Your task to perform on an android device: Check the weather Image 0: 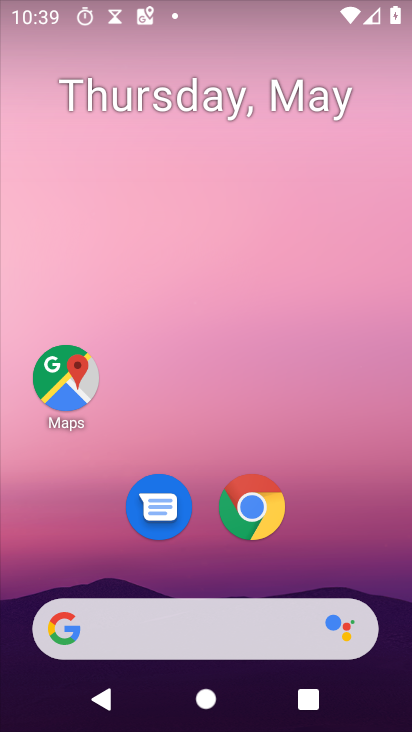
Step 0: drag from (211, 18) to (213, 633)
Your task to perform on an android device: Check the weather Image 1: 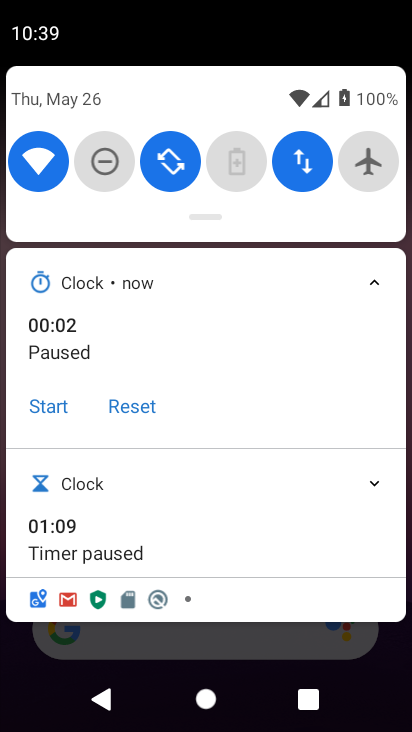
Step 1: press home button
Your task to perform on an android device: Check the weather Image 2: 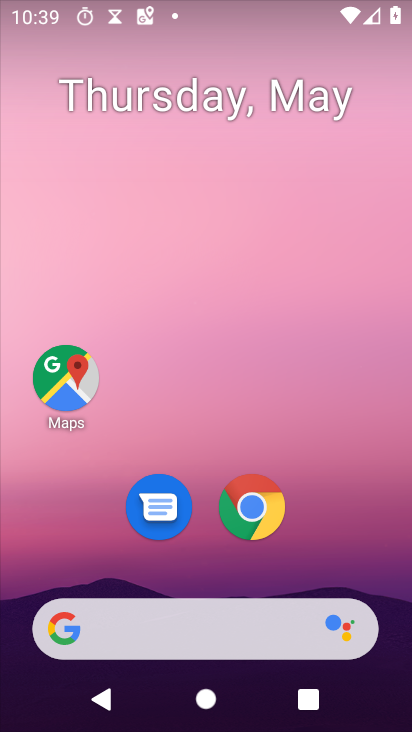
Step 2: click (182, 638)
Your task to perform on an android device: Check the weather Image 3: 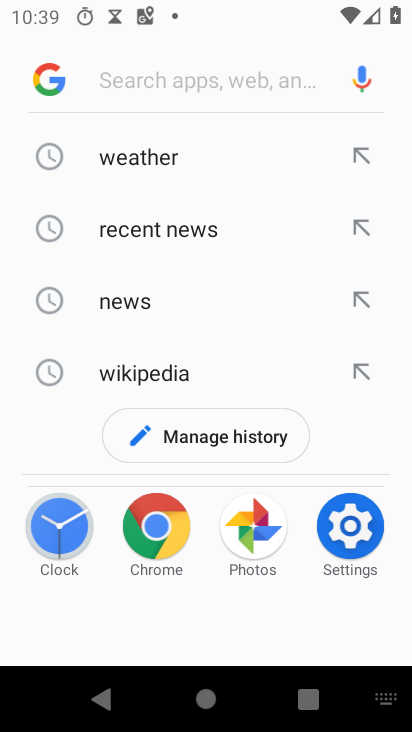
Step 3: click (187, 166)
Your task to perform on an android device: Check the weather Image 4: 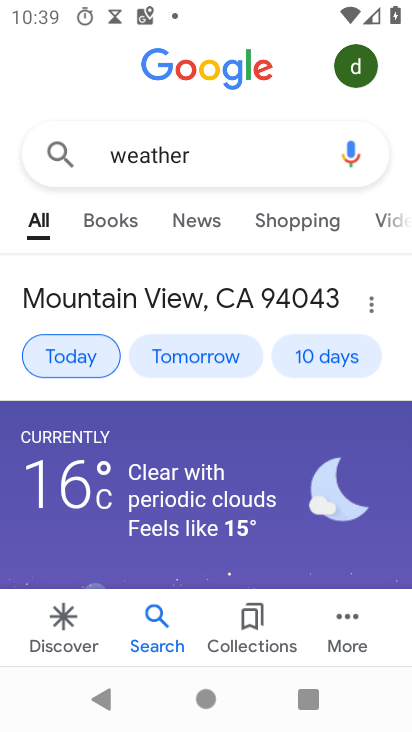
Step 4: task complete